Your task to perform on an android device: Open Youtube and go to "Your channel" Image 0: 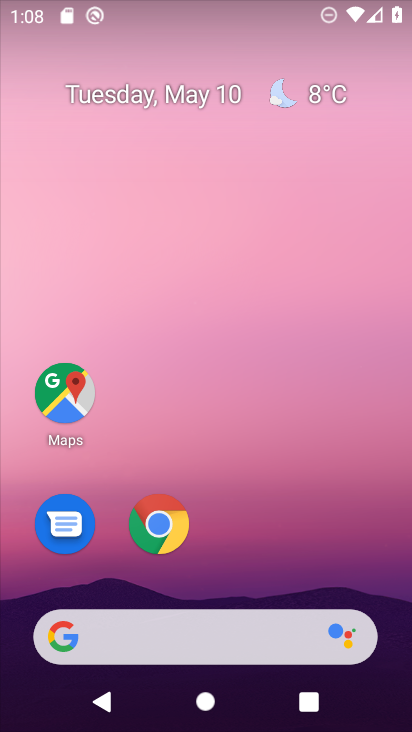
Step 0: drag from (308, 558) to (236, 0)
Your task to perform on an android device: Open Youtube and go to "Your channel" Image 1: 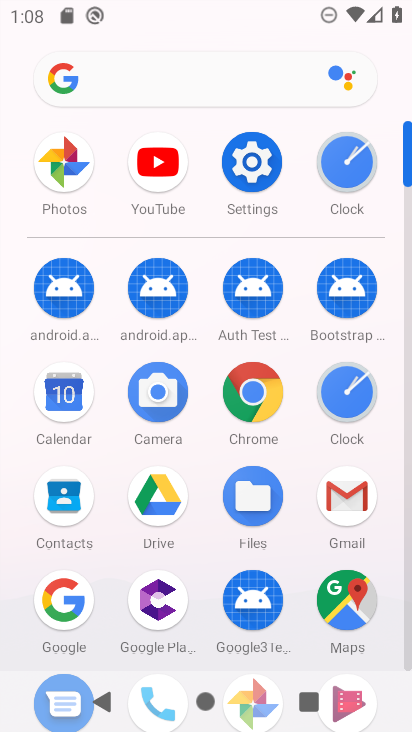
Step 1: click (172, 167)
Your task to perform on an android device: Open Youtube and go to "Your channel" Image 2: 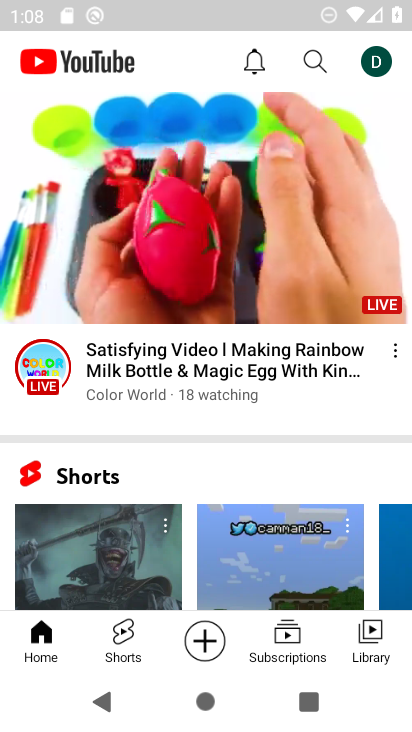
Step 2: click (381, 58)
Your task to perform on an android device: Open Youtube and go to "Your channel" Image 3: 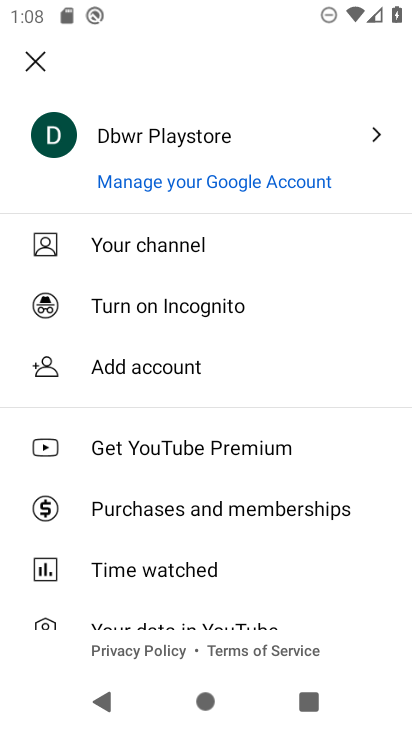
Step 3: click (219, 236)
Your task to perform on an android device: Open Youtube and go to "Your channel" Image 4: 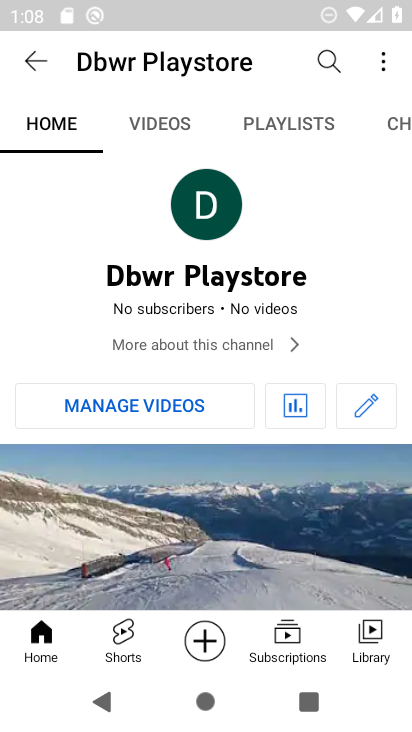
Step 4: task complete